Your task to perform on an android device: search for starred emails in the gmail app Image 0: 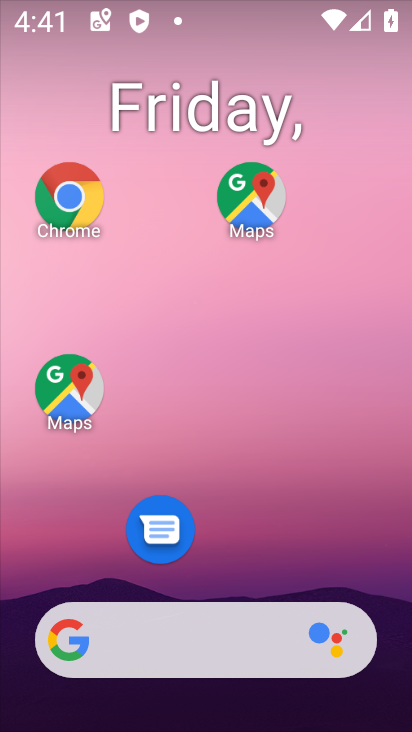
Step 0: drag from (240, 503) to (184, 0)
Your task to perform on an android device: search for starred emails in the gmail app Image 1: 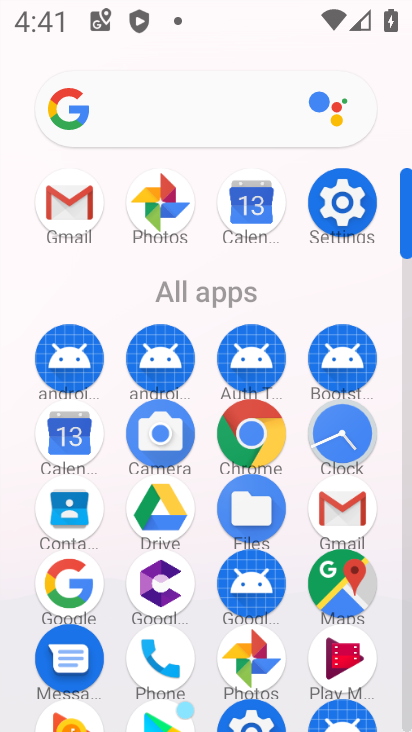
Step 1: click (67, 250)
Your task to perform on an android device: search for starred emails in the gmail app Image 2: 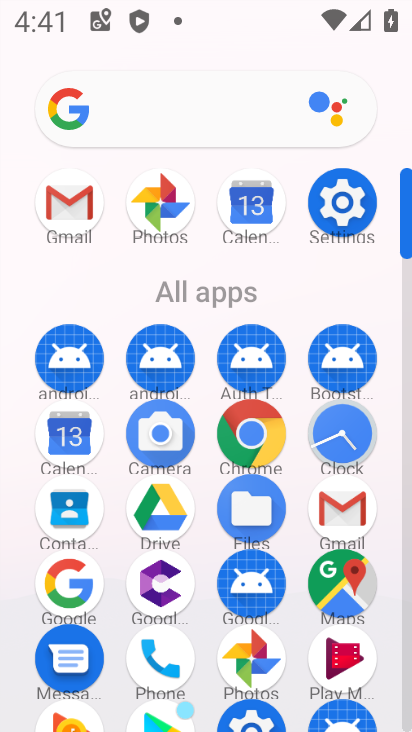
Step 2: click (64, 204)
Your task to perform on an android device: search for starred emails in the gmail app Image 3: 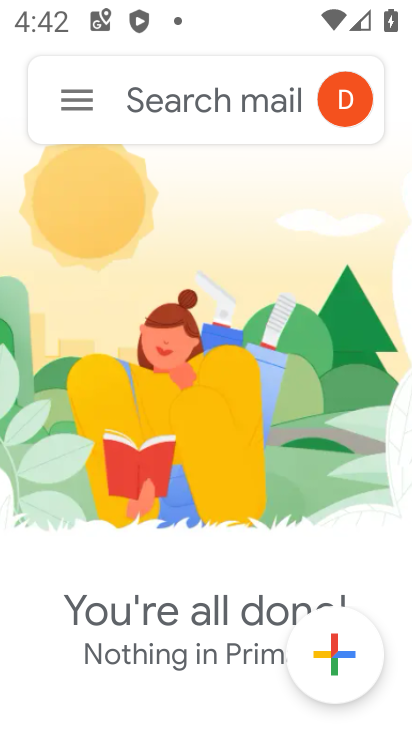
Step 3: click (79, 101)
Your task to perform on an android device: search for starred emails in the gmail app Image 4: 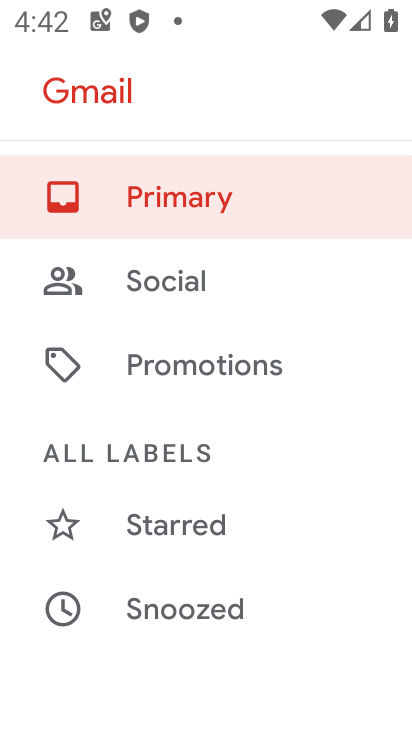
Step 4: click (219, 518)
Your task to perform on an android device: search for starred emails in the gmail app Image 5: 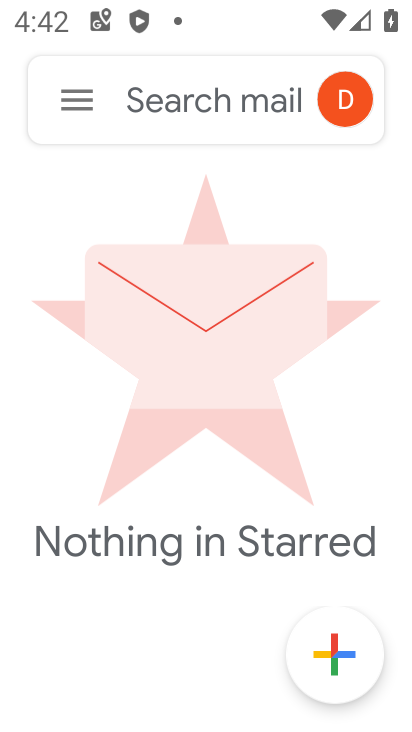
Step 5: task complete